Your task to perform on an android device: Search for Mexican restaurants on Maps Image 0: 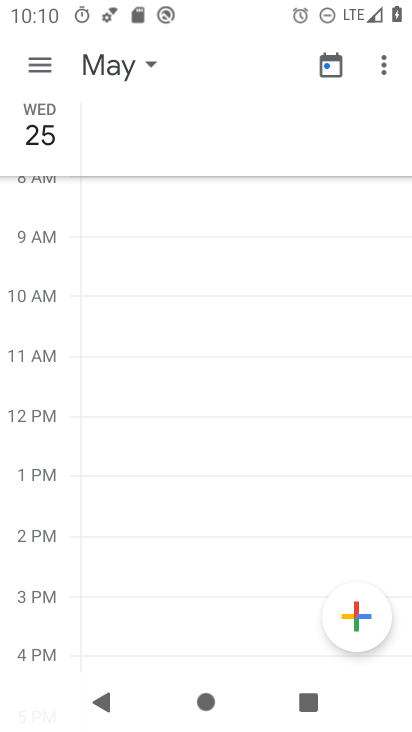
Step 0: press home button
Your task to perform on an android device: Search for Mexican restaurants on Maps Image 1: 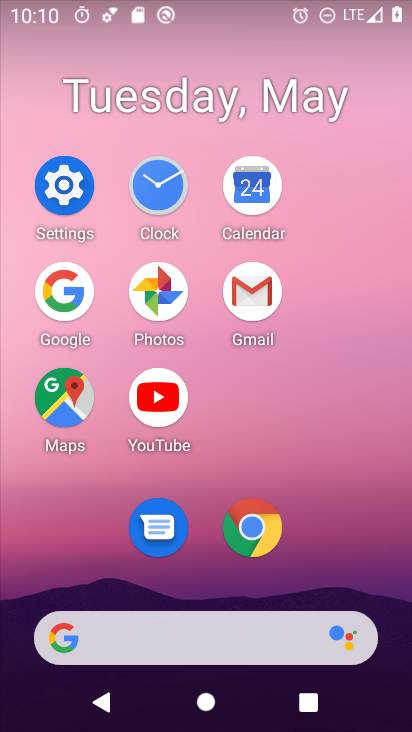
Step 1: click (60, 430)
Your task to perform on an android device: Search for Mexican restaurants on Maps Image 2: 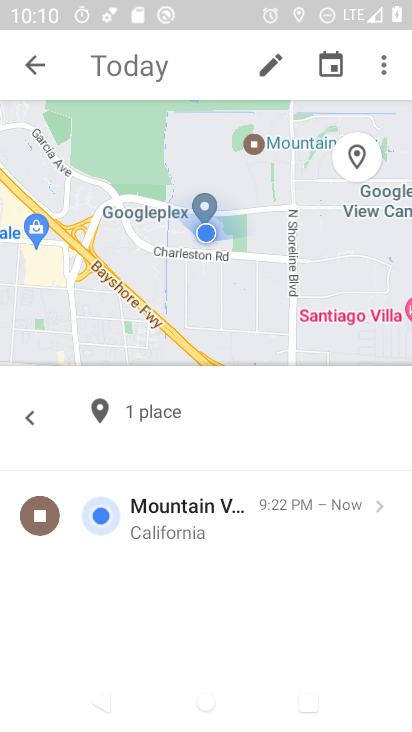
Step 2: click (22, 62)
Your task to perform on an android device: Search for Mexican restaurants on Maps Image 3: 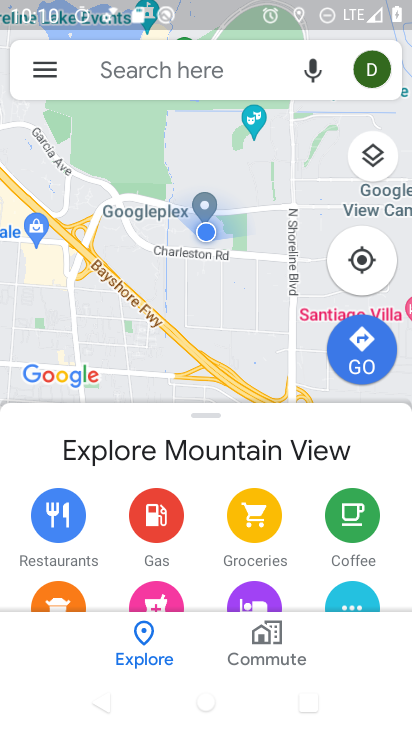
Step 3: click (142, 92)
Your task to perform on an android device: Search for Mexican restaurants on Maps Image 4: 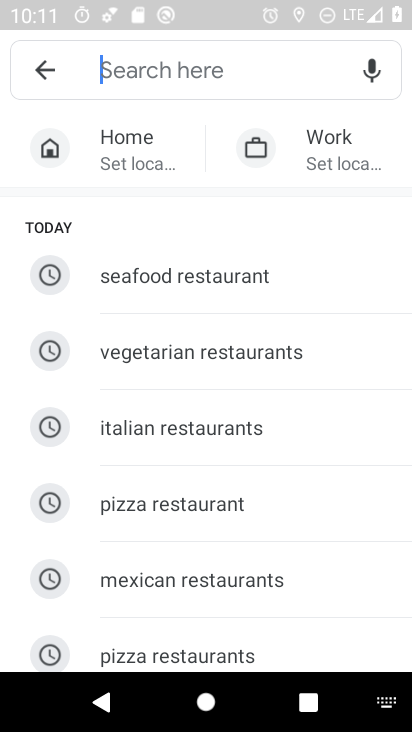
Step 4: click (236, 575)
Your task to perform on an android device: Search for Mexican restaurants on Maps Image 5: 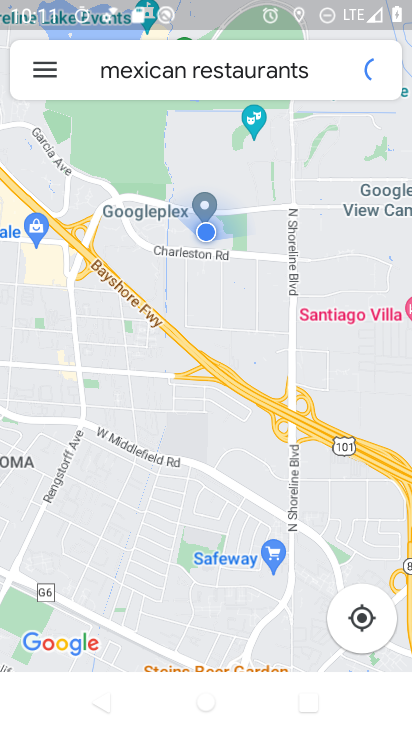
Step 5: task complete